Your task to perform on an android device: Go to Wikipedia Image 0: 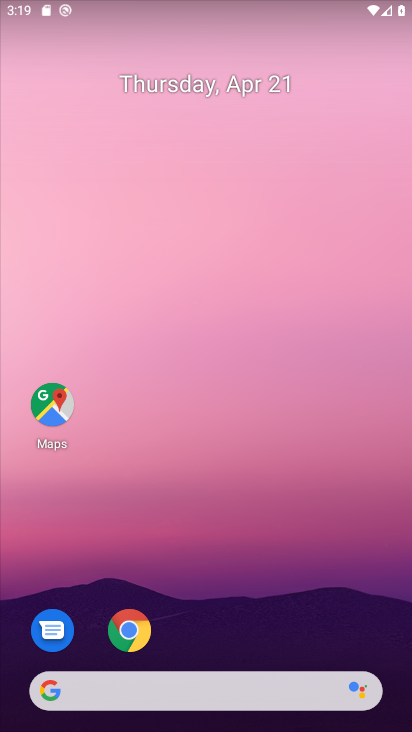
Step 0: drag from (223, 588) to (255, 72)
Your task to perform on an android device: Go to Wikipedia Image 1: 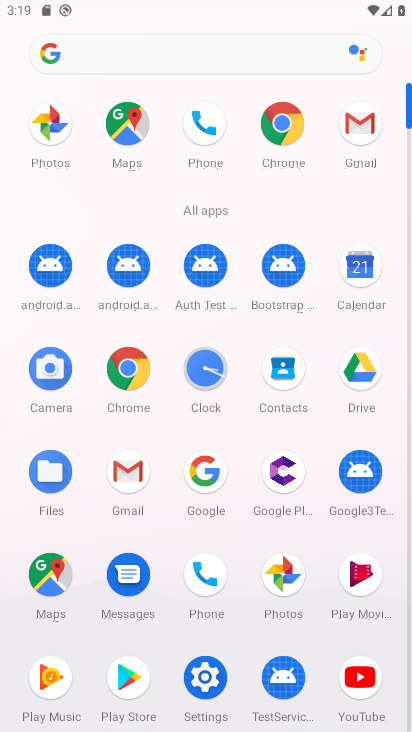
Step 1: click (283, 125)
Your task to perform on an android device: Go to Wikipedia Image 2: 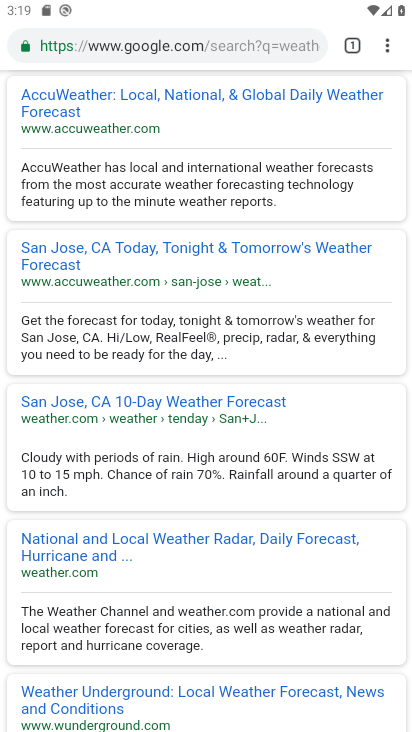
Step 2: click (148, 51)
Your task to perform on an android device: Go to Wikipedia Image 3: 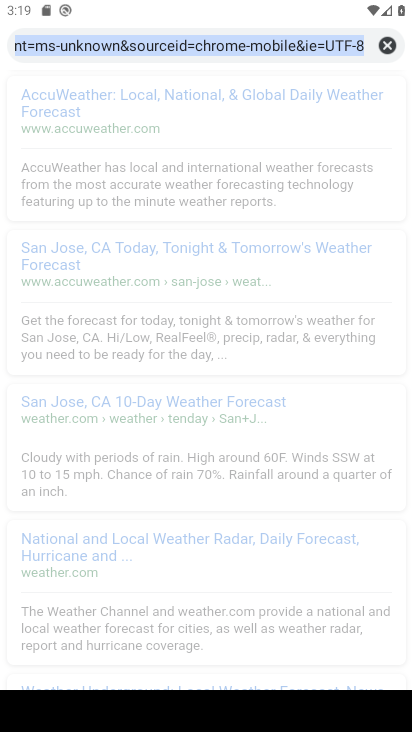
Step 3: click (379, 46)
Your task to perform on an android device: Go to Wikipedia Image 4: 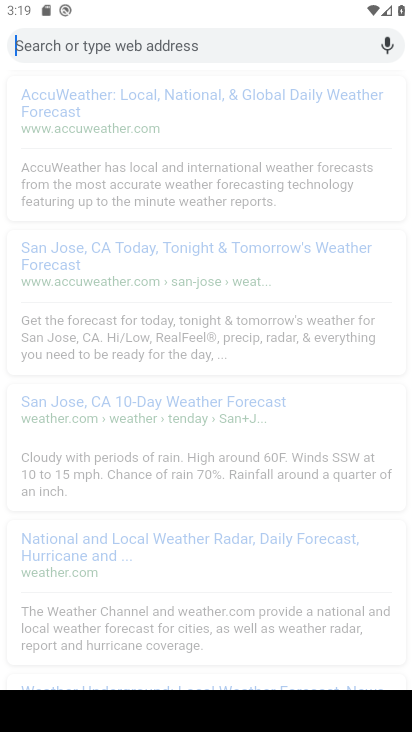
Step 4: type "wikipedia"
Your task to perform on an android device: Go to Wikipedia Image 5: 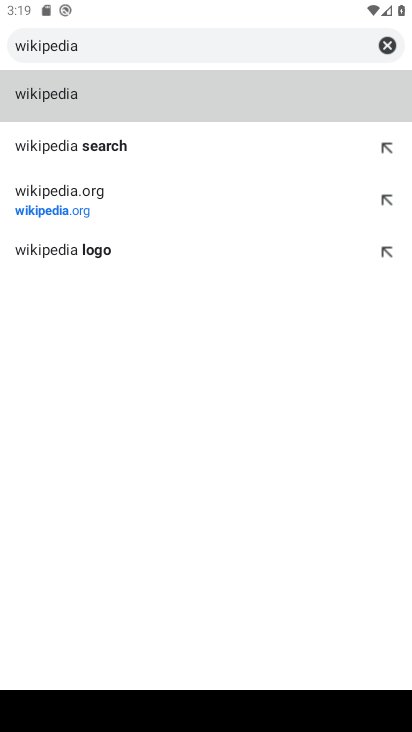
Step 5: click (49, 95)
Your task to perform on an android device: Go to Wikipedia Image 6: 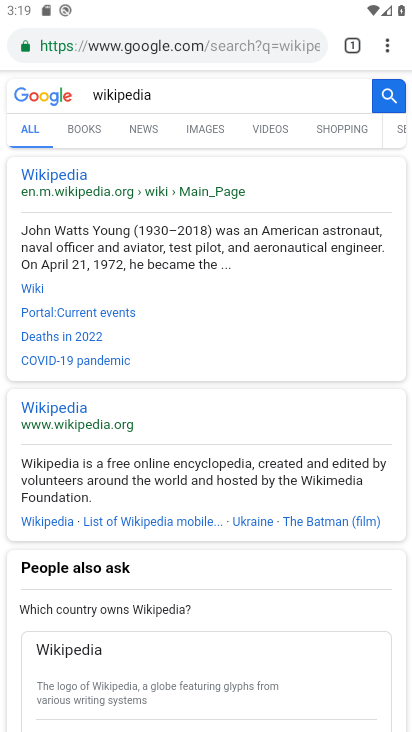
Step 6: drag from (163, 535) to (222, 152)
Your task to perform on an android device: Go to Wikipedia Image 7: 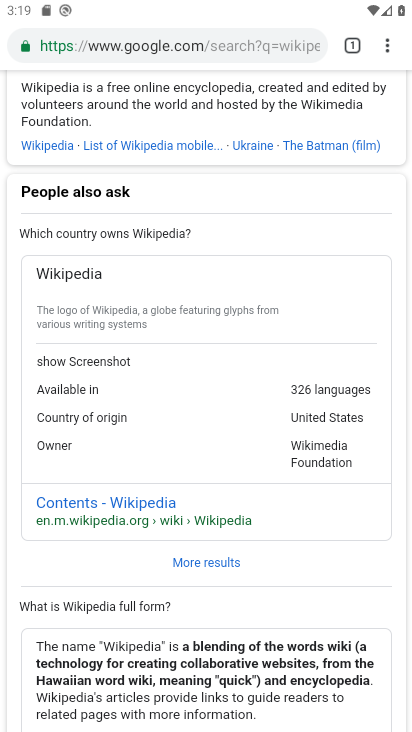
Step 7: drag from (203, 573) to (202, 153)
Your task to perform on an android device: Go to Wikipedia Image 8: 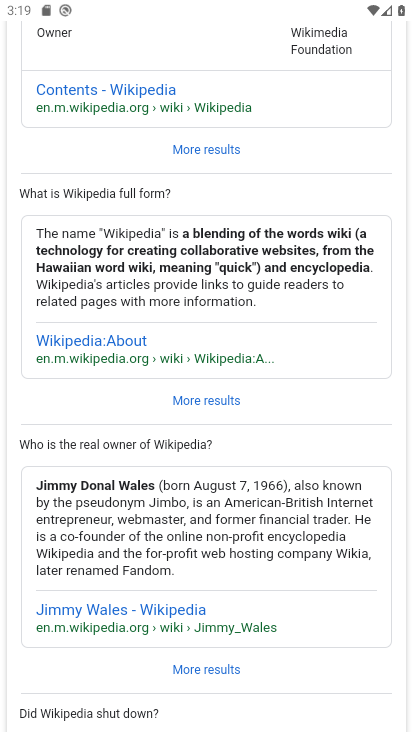
Step 8: drag from (227, 518) to (238, 320)
Your task to perform on an android device: Go to Wikipedia Image 9: 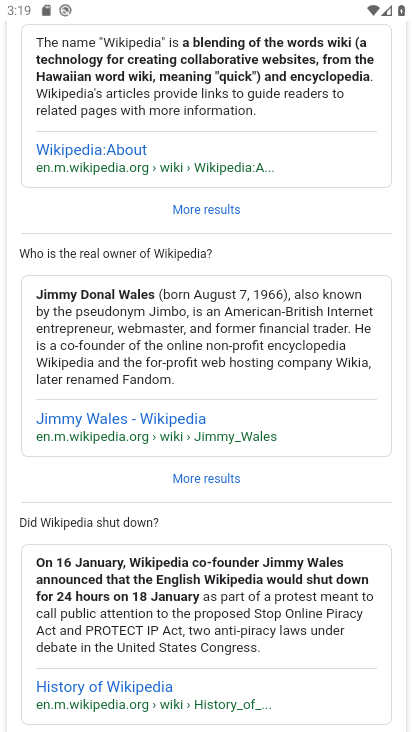
Step 9: drag from (221, 226) to (307, 730)
Your task to perform on an android device: Go to Wikipedia Image 10: 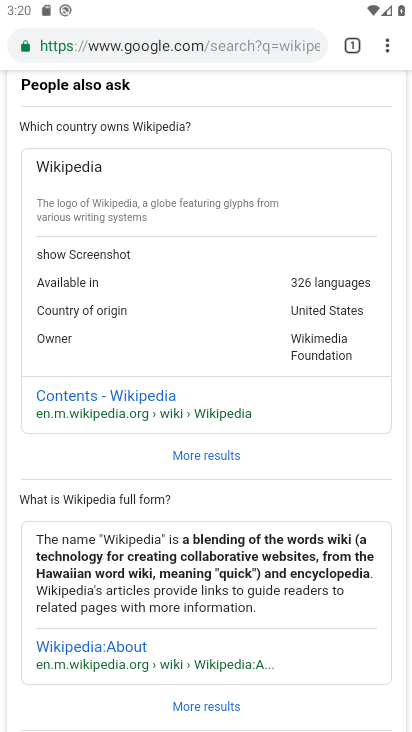
Step 10: drag from (150, 206) to (368, 666)
Your task to perform on an android device: Go to Wikipedia Image 11: 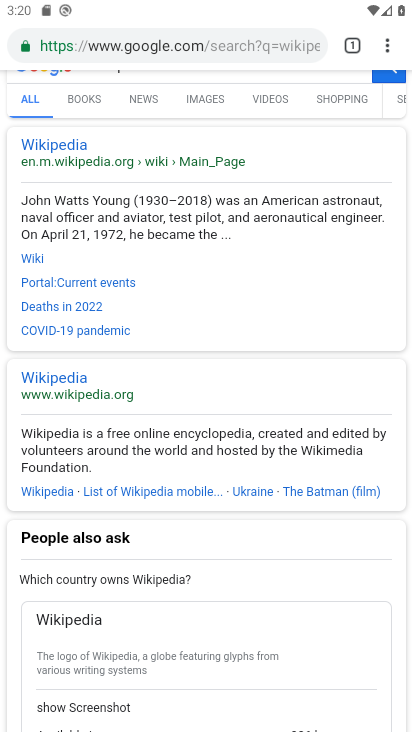
Step 11: click (57, 378)
Your task to perform on an android device: Go to Wikipedia Image 12: 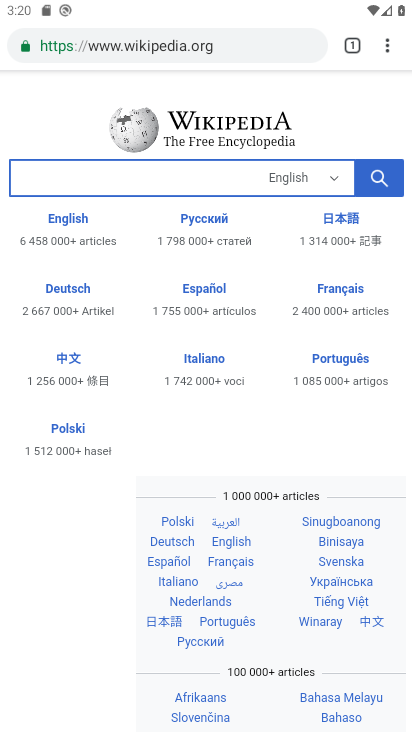
Step 12: task complete